Your task to perform on an android device: Turn on the flashlight Image 0: 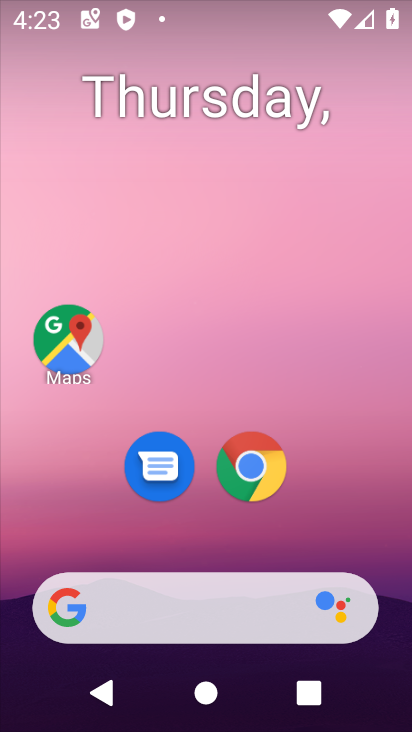
Step 0: drag from (344, 543) to (337, 30)
Your task to perform on an android device: Turn on the flashlight Image 1: 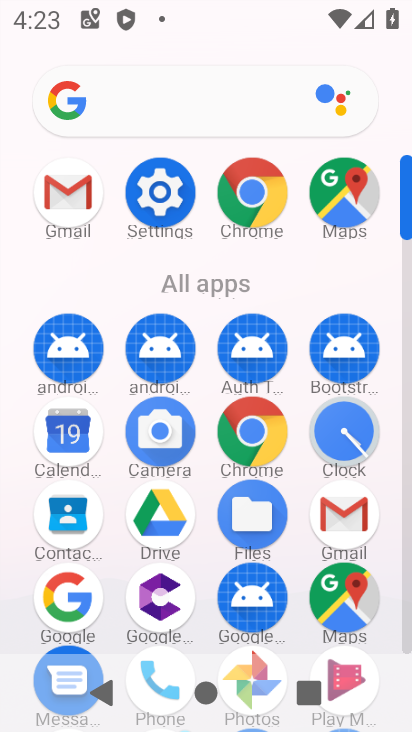
Step 1: click (142, 201)
Your task to perform on an android device: Turn on the flashlight Image 2: 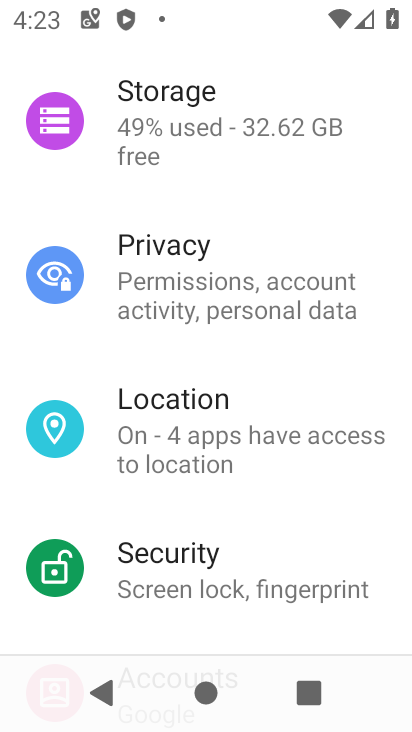
Step 2: task complete